Your task to perform on an android device: Open Youtube and go to the subscriptions tab Image 0: 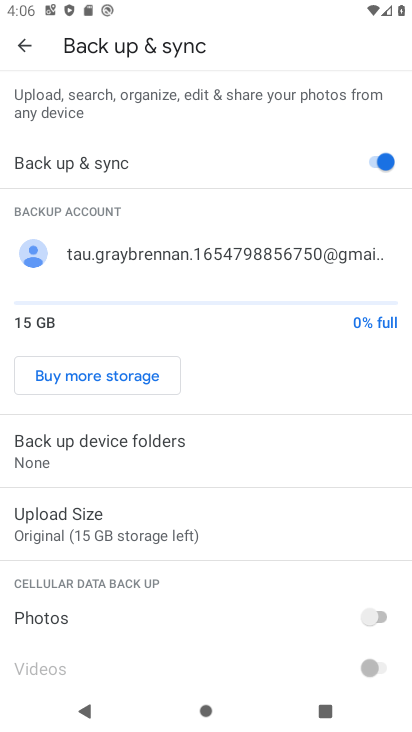
Step 0: press home button
Your task to perform on an android device: Open Youtube and go to the subscriptions tab Image 1: 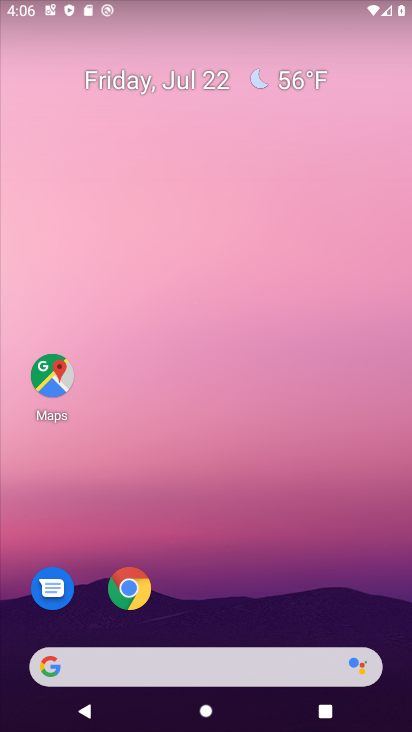
Step 1: drag from (237, 591) to (254, 136)
Your task to perform on an android device: Open Youtube and go to the subscriptions tab Image 2: 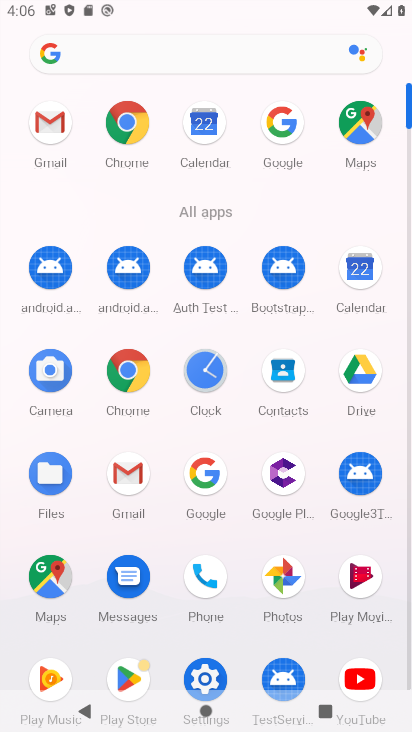
Step 2: click (346, 661)
Your task to perform on an android device: Open Youtube and go to the subscriptions tab Image 3: 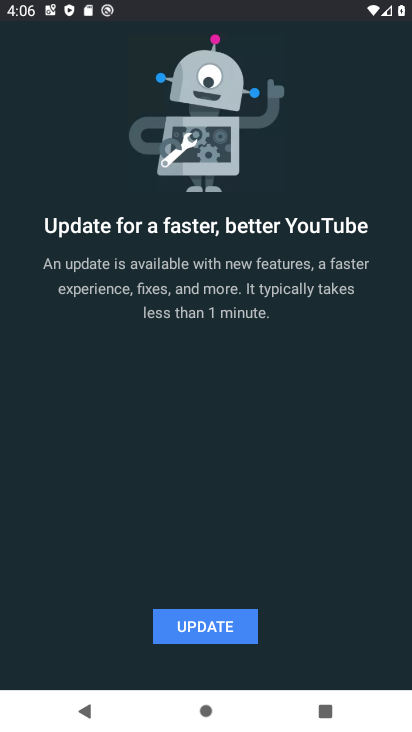
Step 3: click (206, 624)
Your task to perform on an android device: Open Youtube and go to the subscriptions tab Image 4: 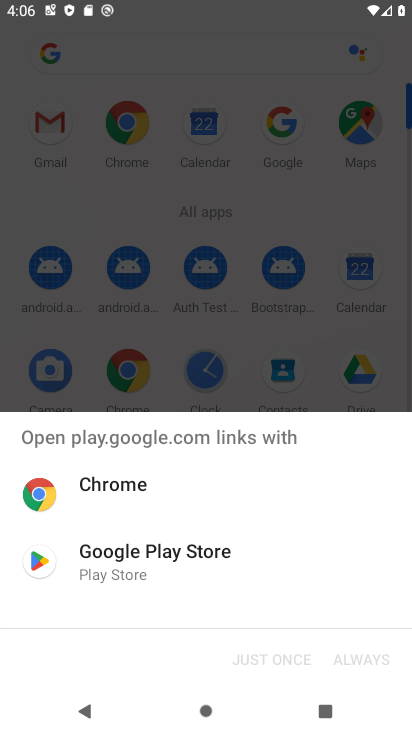
Step 4: click (191, 547)
Your task to perform on an android device: Open Youtube and go to the subscriptions tab Image 5: 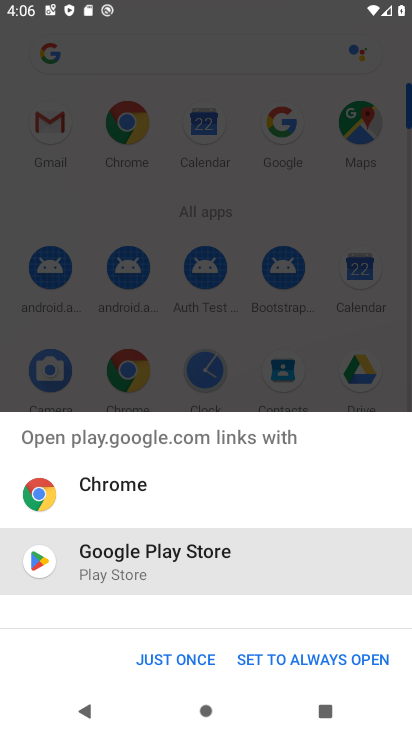
Step 5: click (140, 653)
Your task to perform on an android device: Open Youtube and go to the subscriptions tab Image 6: 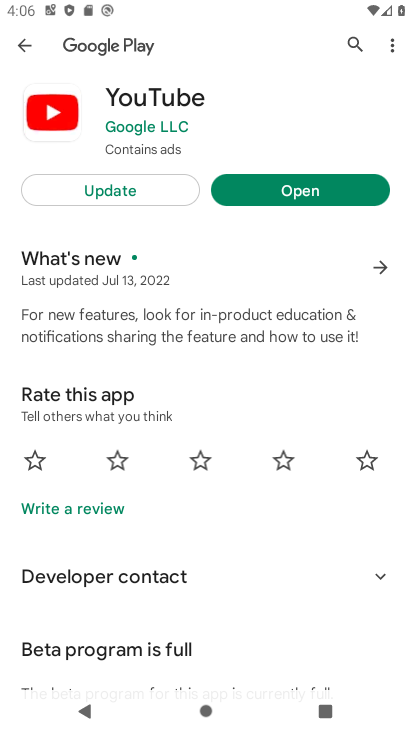
Step 6: click (134, 194)
Your task to perform on an android device: Open Youtube and go to the subscriptions tab Image 7: 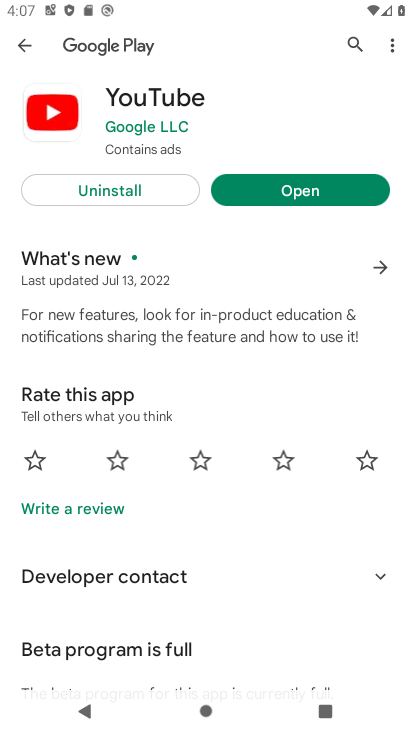
Step 7: click (280, 183)
Your task to perform on an android device: Open Youtube and go to the subscriptions tab Image 8: 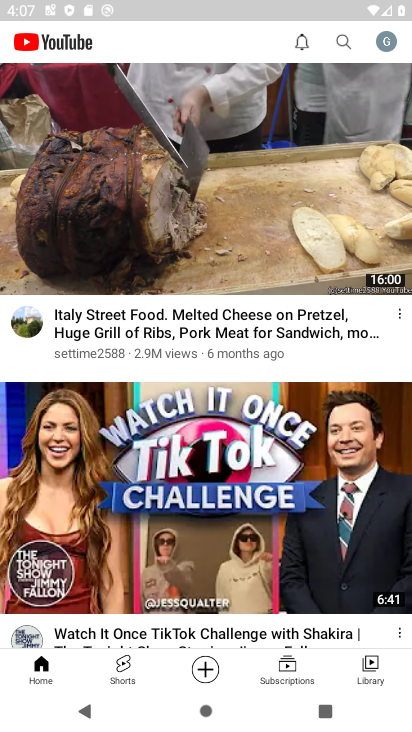
Step 8: click (291, 668)
Your task to perform on an android device: Open Youtube and go to the subscriptions tab Image 9: 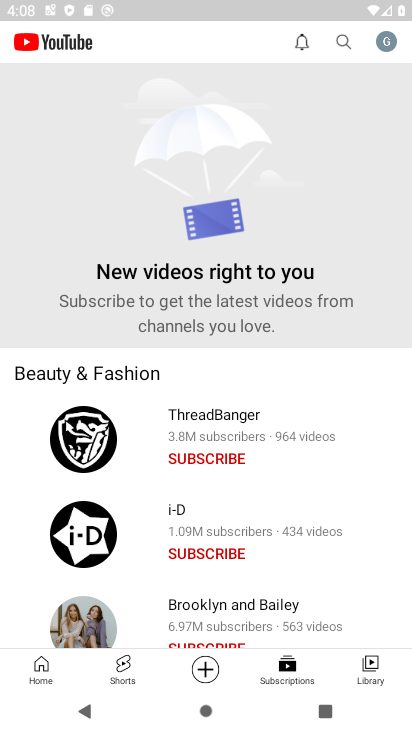
Step 9: task complete